Your task to perform on an android device: Go to Amazon Image 0: 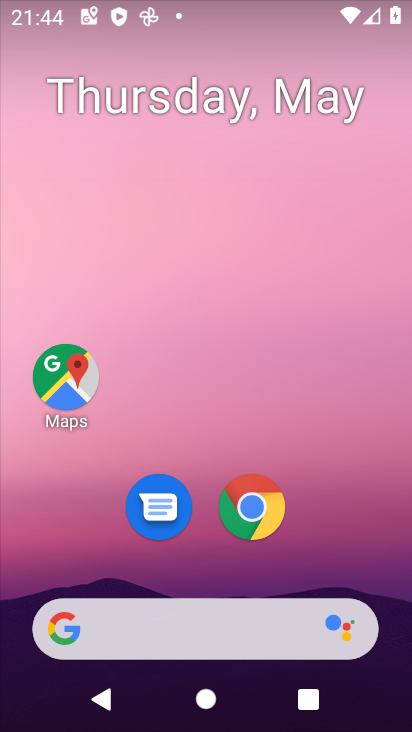
Step 0: drag from (283, 607) to (392, 82)
Your task to perform on an android device: Go to Amazon Image 1: 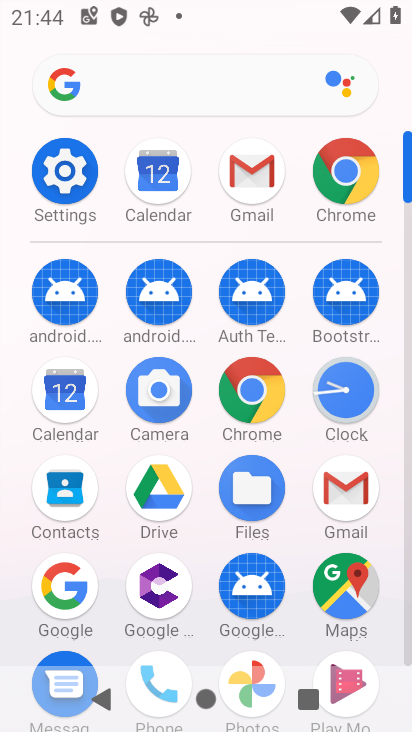
Step 1: click (342, 191)
Your task to perform on an android device: Go to Amazon Image 2: 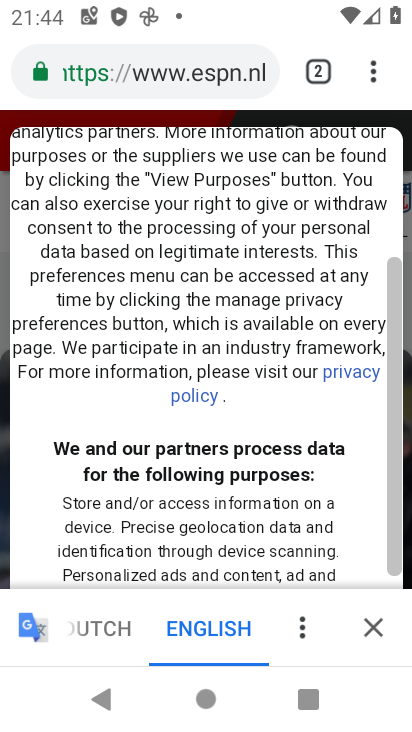
Step 2: click (370, 87)
Your task to perform on an android device: Go to Amazon Image 3: 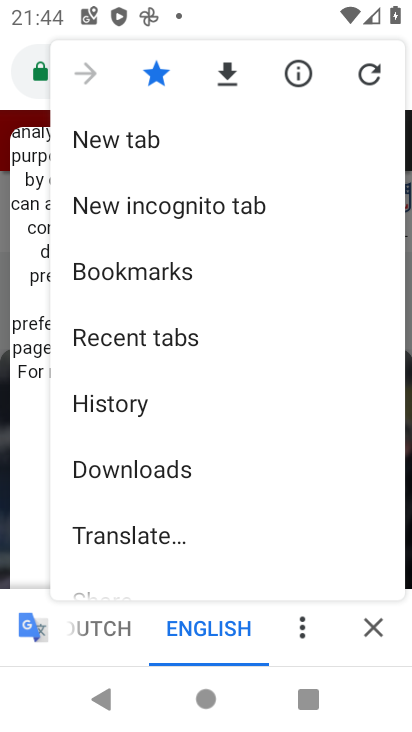
Step 3: drag from (204, 486) to (300, 189)
Your task to perform on an android device: Go to Amazon Image 4: 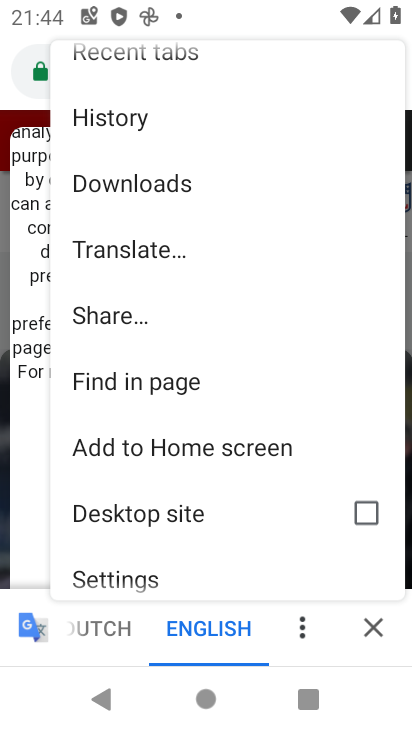
Step 4: click (150, 580)
Your task to perform on an android device: Go to Amazon Image 5: 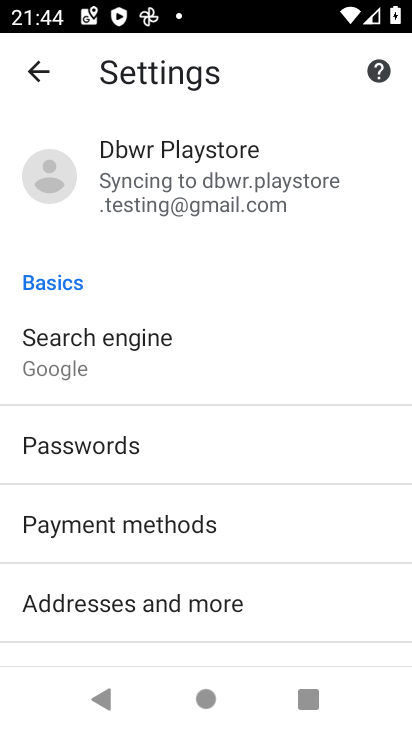
Step 5: click (41, 74)
Your task to perform on an android device: Go to Amazon Image 6: 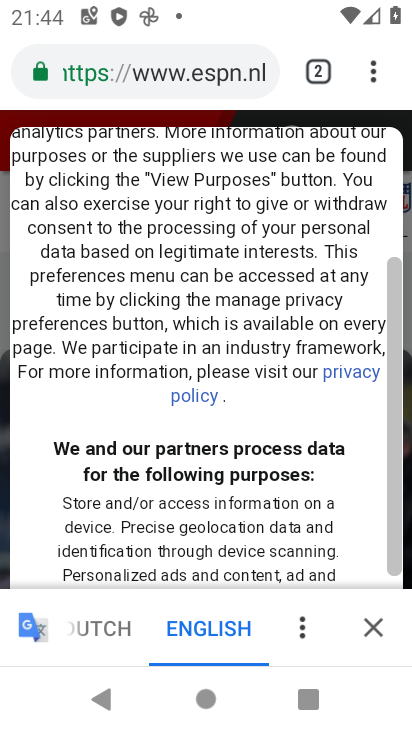
Step 6: click (316, 75)
Your task to perform on an android device: Go to Amazon Image 7: 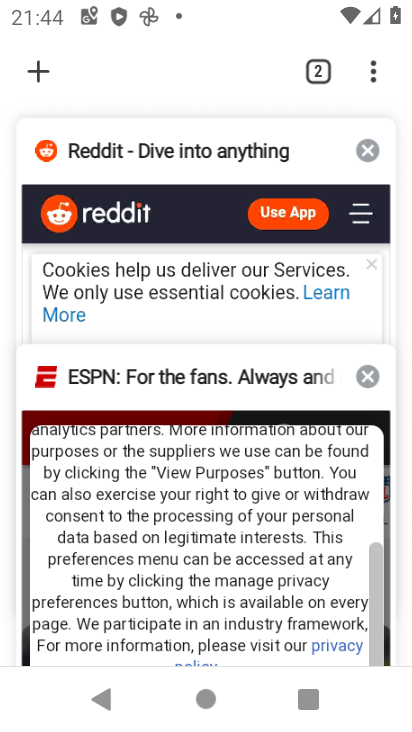
Step 7: click (38, 66)
Your task to perform on an android device: Go to Amazon Image 8: 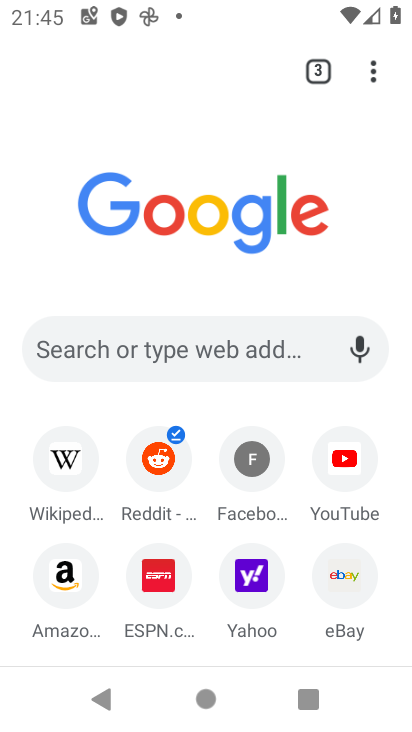
Step 8: click (53, 584)
Your task to perform on an android device: Go to Amazon Image 9: 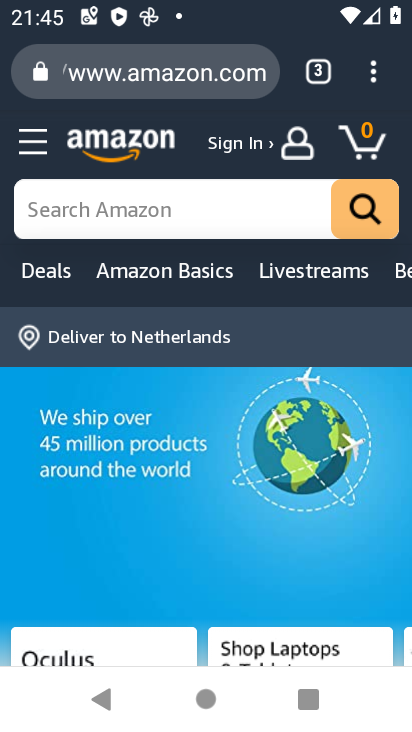
Step 9: task complete